Your task to perform on an android device: Search for a new desk on IKEA Image 0: 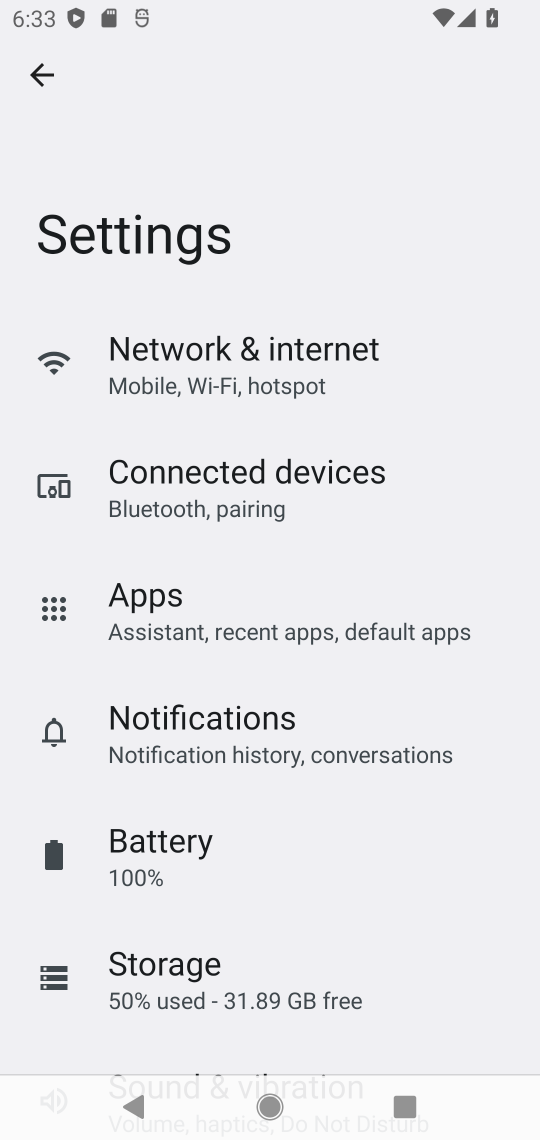
Step 0: press home button
Your task to perform on an android device: Search for a new desk on IKEA Image 1: 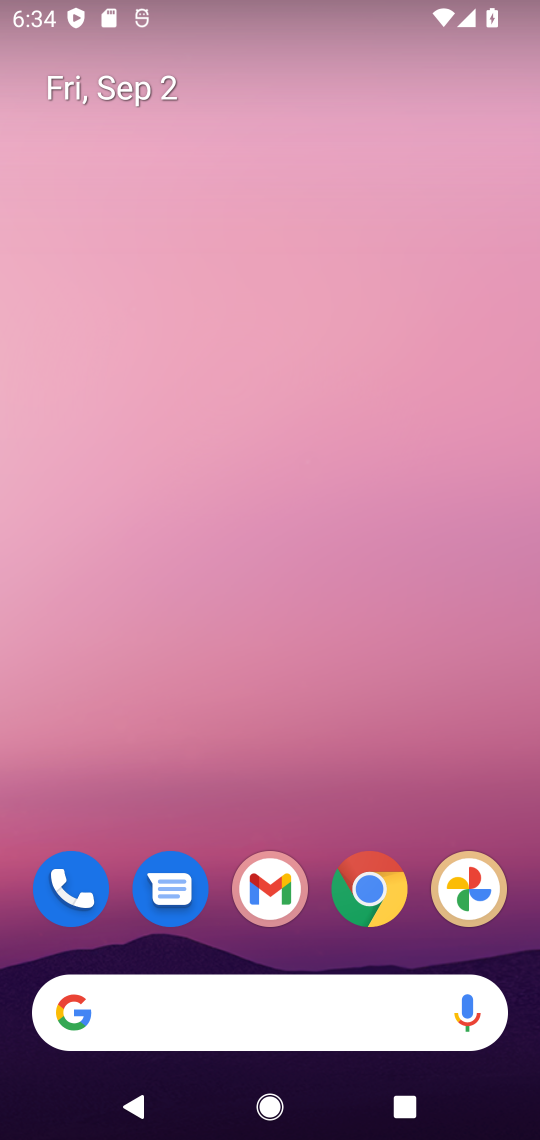
Step 1: click (265, 987)
Your task to perform on an android device: Search for a new desk on IKEA Image 2: 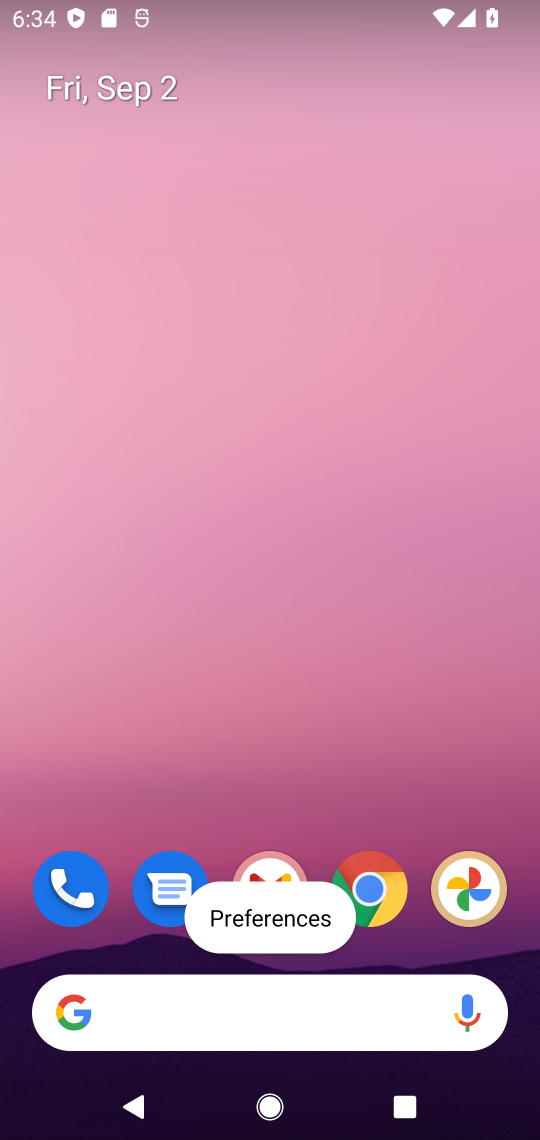
Step 2: click (347, 993)
Your task to perform on an android device: Search for a new desk on IKEA Image 3: 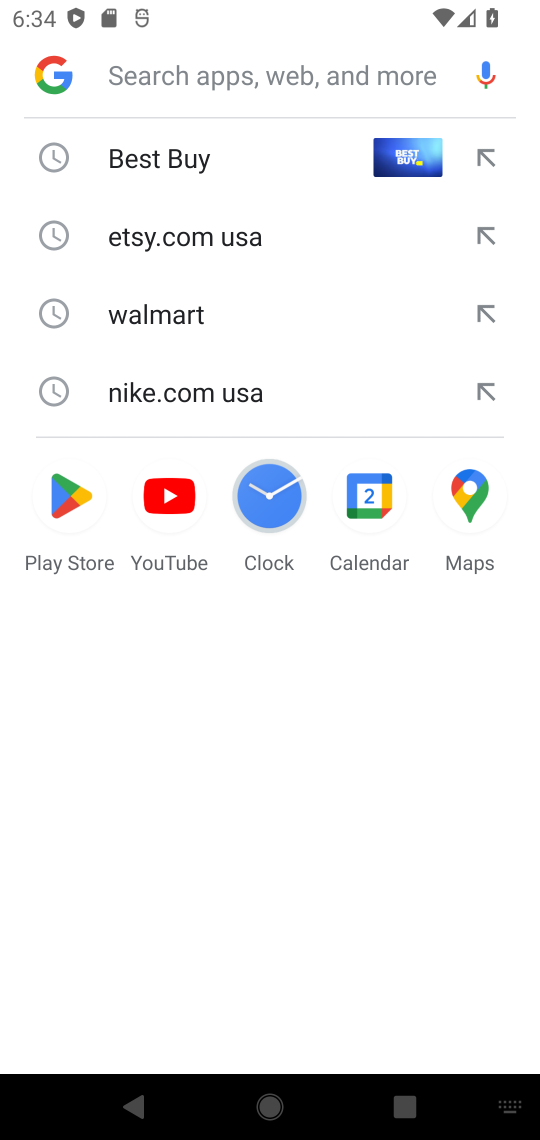
Step 3: type "IKEA"
Your task to perform on an android device: Search for a new desk on IKEA Image 4: 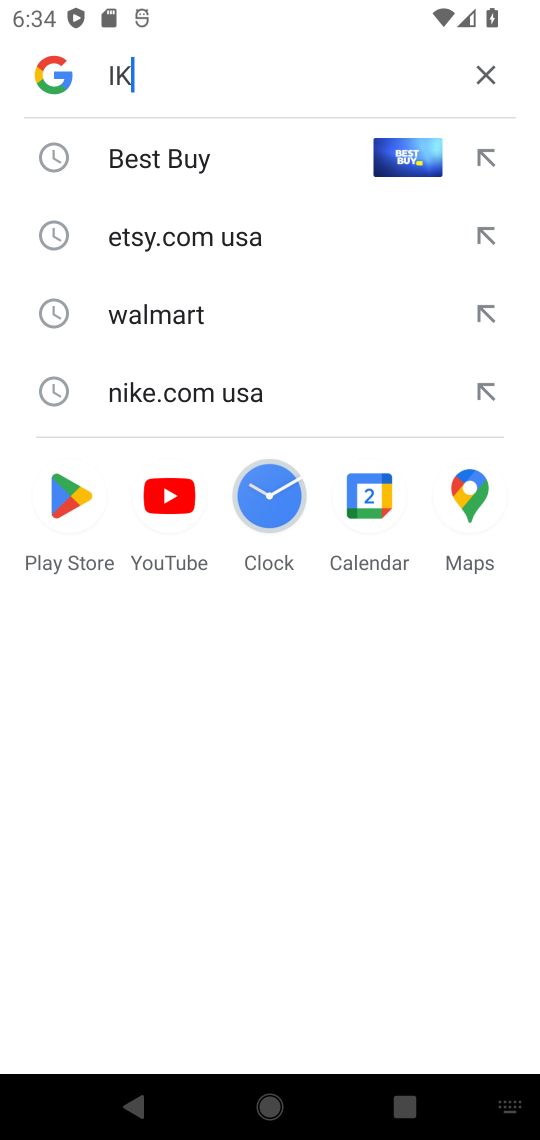
Step 4: type ""
Your task to perform on an android device: Search for a new desk on IKEA Image 5: 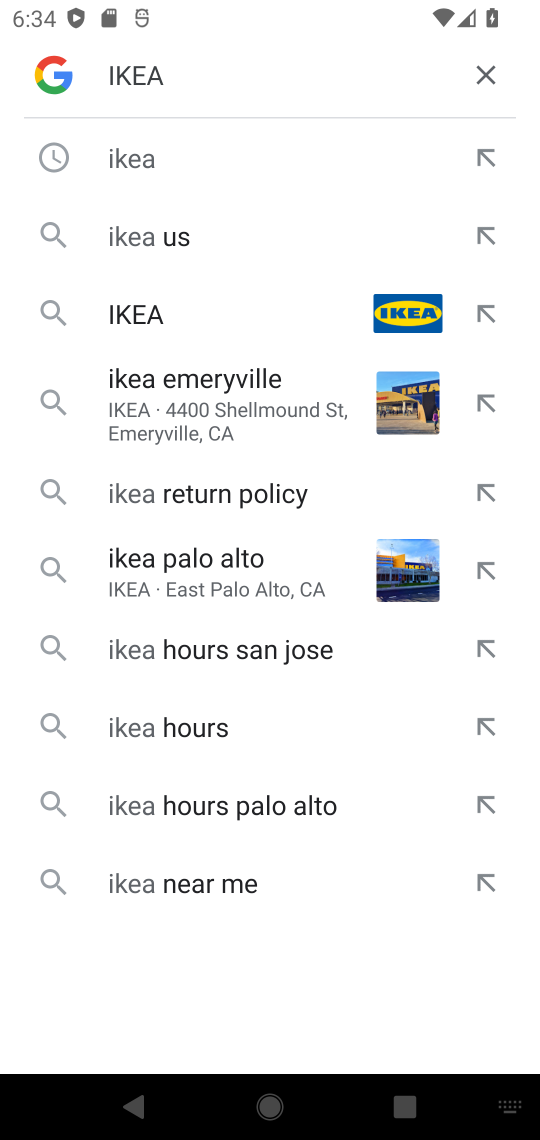
Step 5: click (235, 154)
Your task to perform on an android device: Search for a new desk on IKEA Image 6: 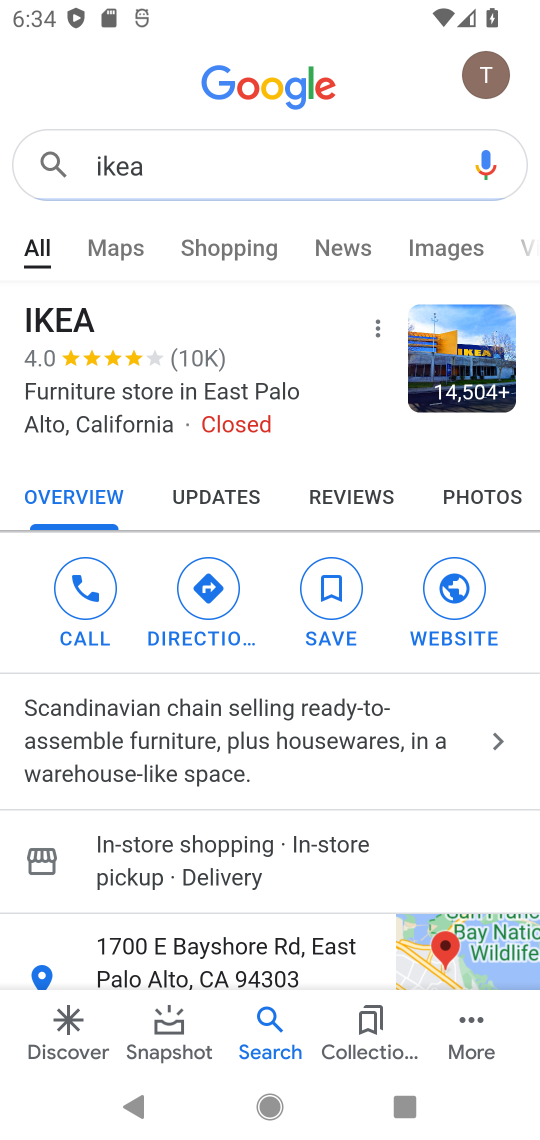
Step 6: drag from (246, 807) to (396, 284)
Your task to perform on an android device: Search for a new desk on IKEA Image 7: 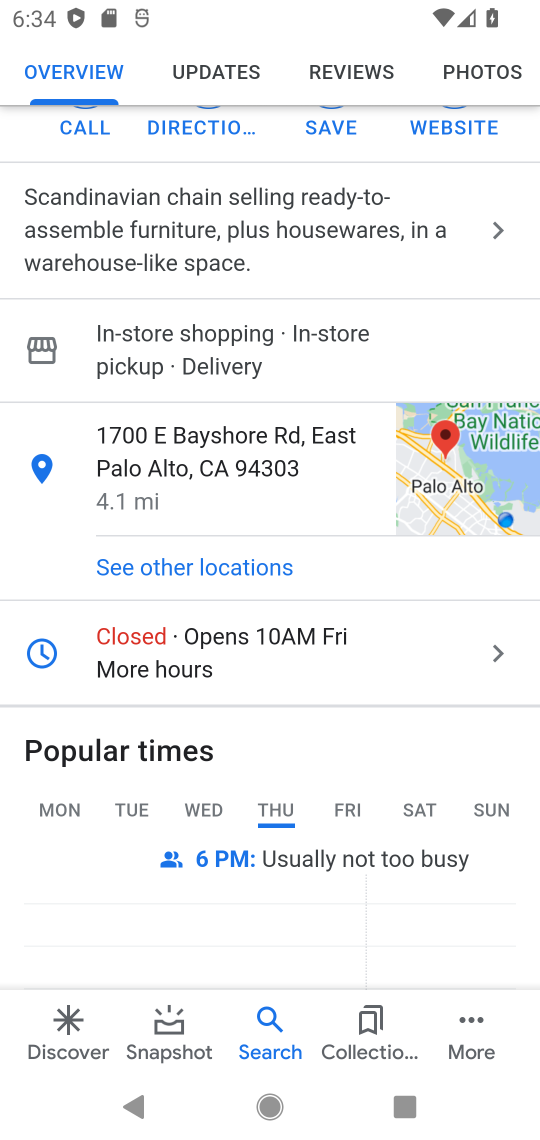
Step 7: drag from (363, 706) to (389, 537)
Your task to perform on an android device: Search for a new desk on IKEA Image 8: 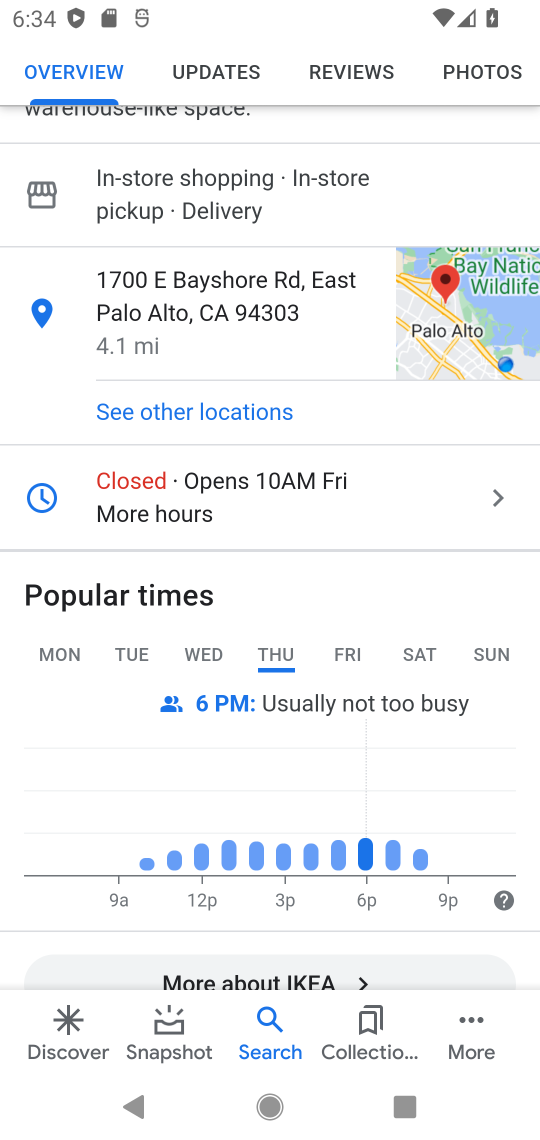
Step 8: drag from (388, 926) to (474, 668)
Your task to perform on an android device: Search for a new desk on IKEA Image 9: 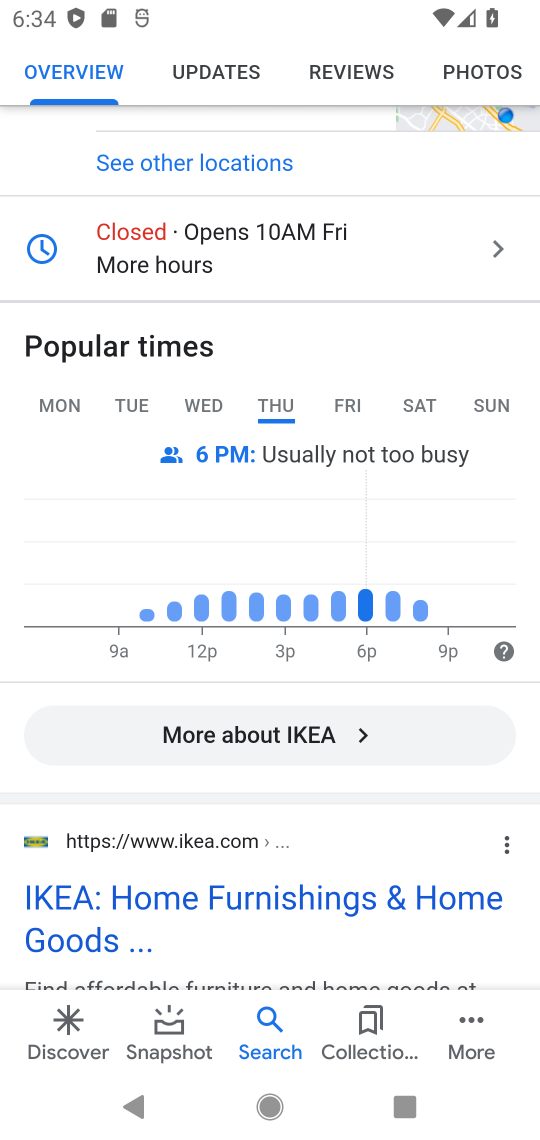
Step 9: drag from (415, 900) to (443, 720)
Your task to perform on an android device: Search for a new desk on IKEA Image 10: 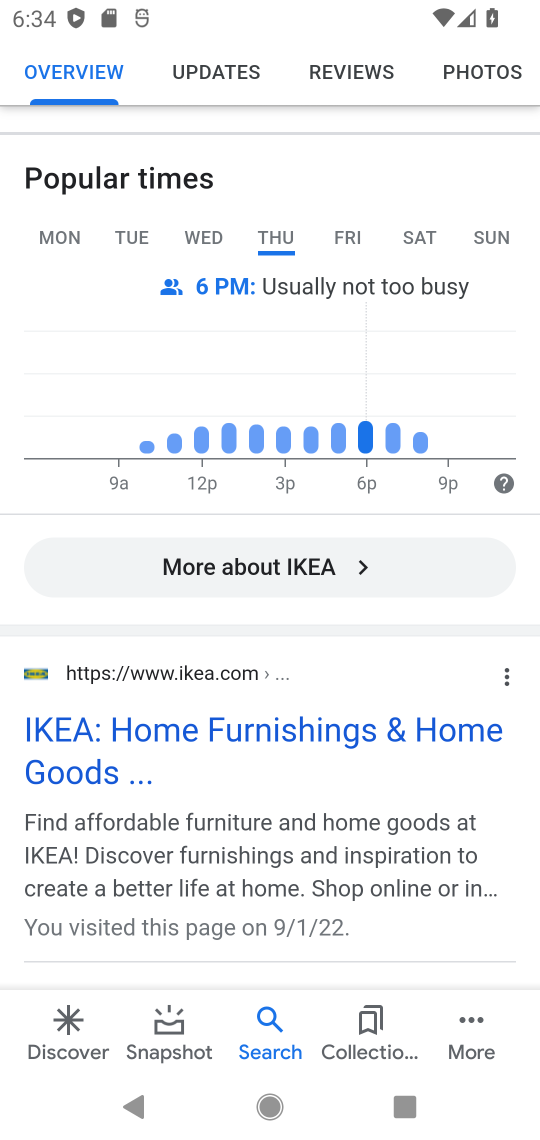
Step 10: click (386, 753)
Your task to perform on an android device: Search for a new desk on IKEA Image 11: 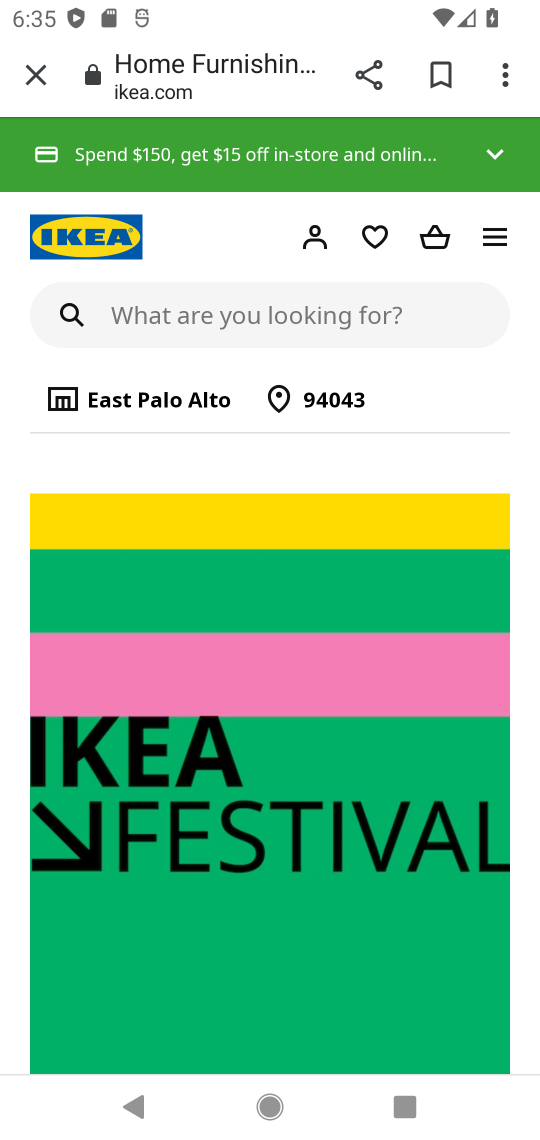
Step 11: click (238, 317)
Your task to perform on an android device: Search for a new desk on IKEA Image 12: 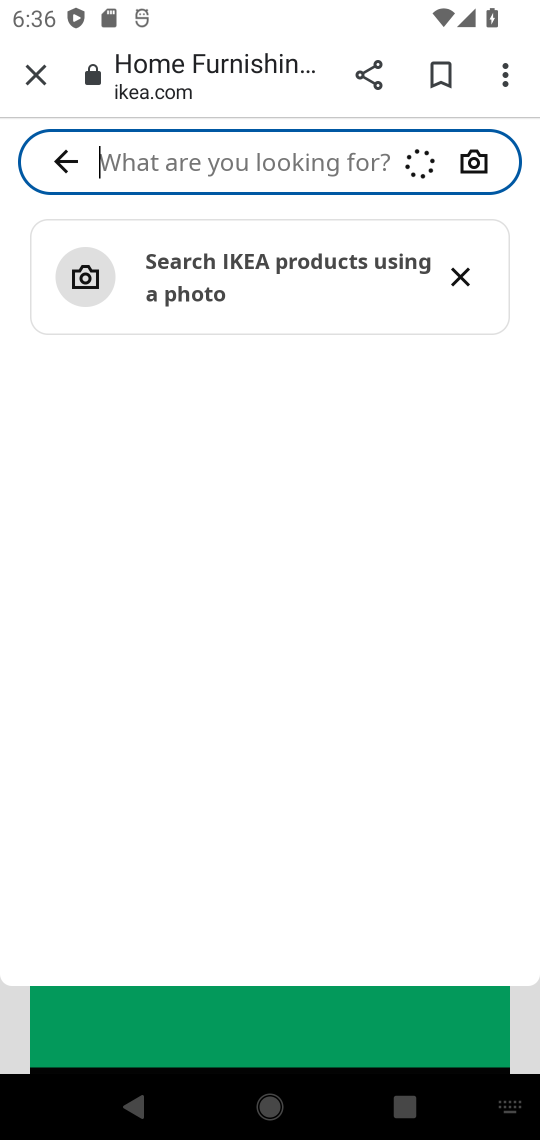
Step 12: type "new desk"
Your task to perform on an android device: Search for a new desk on IKEA Image 13: 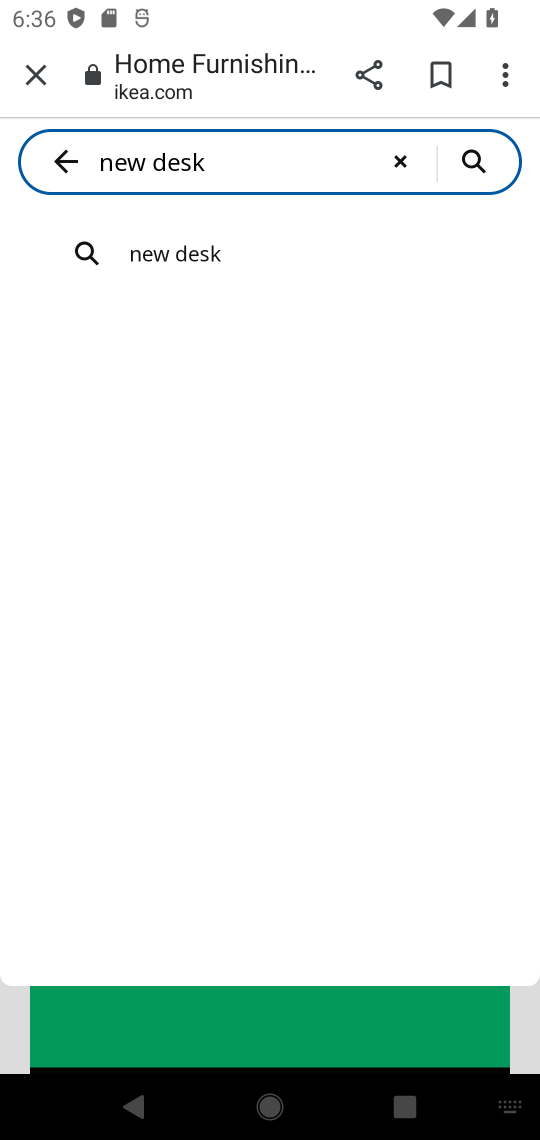
Step 13: click (254, 255)
Your task to perform on an android device: Search for a new desk on IKEA Image 14: 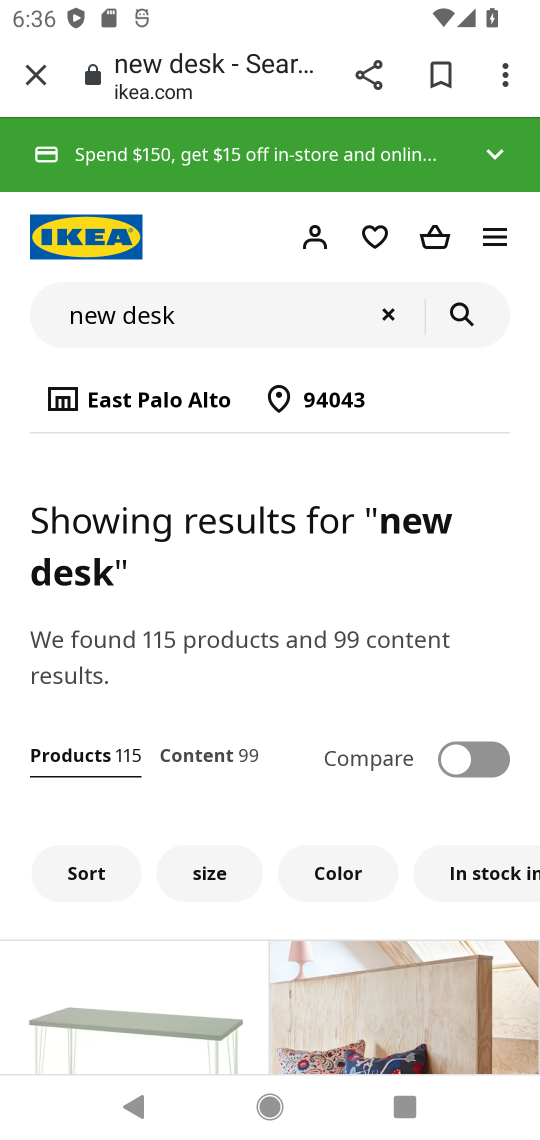
Step 14: task complete